Your task to perform on an android device: Go to eBay Image 0: 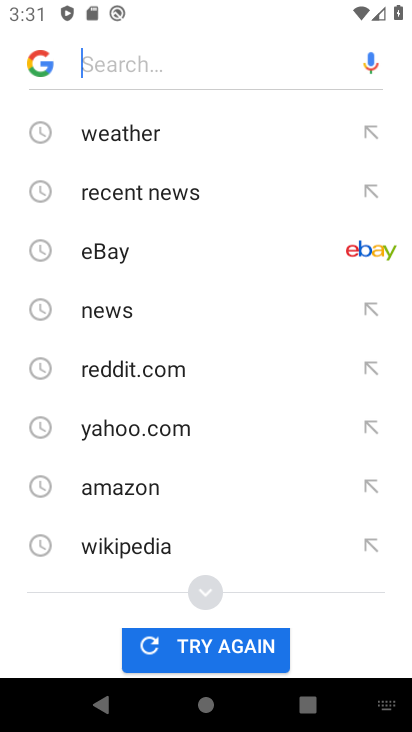
Step 0: click (124, 254)
Your task to perform on an android device: Go to eBay Image 1: 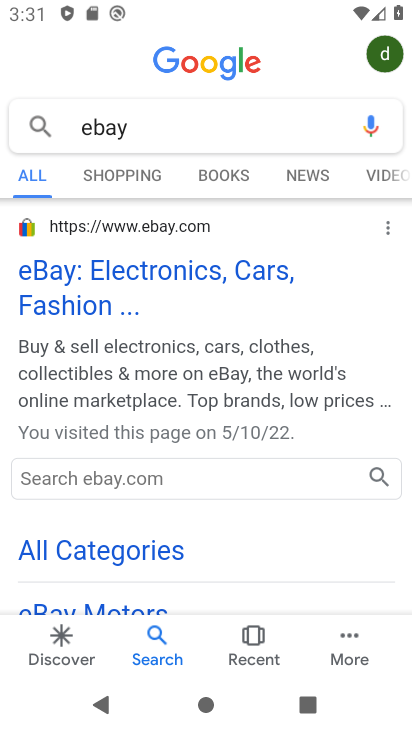
Step 1: click (55, 287)
Your task to perform on an android device: Go to eBay Image 2: 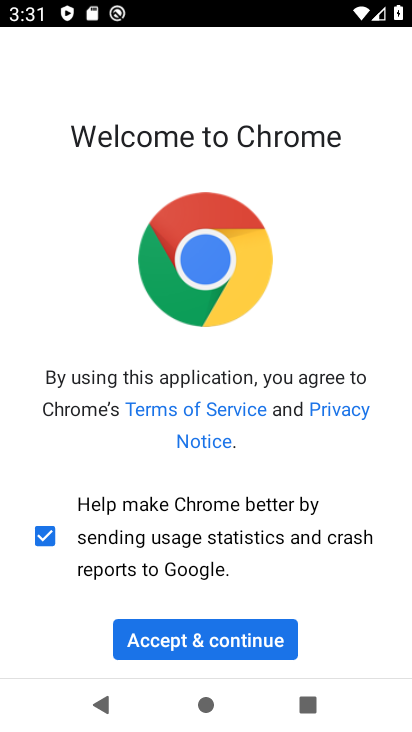
Step 2: click (246, 637)
Your task to perform on an android device: Go to eBay Image 3: 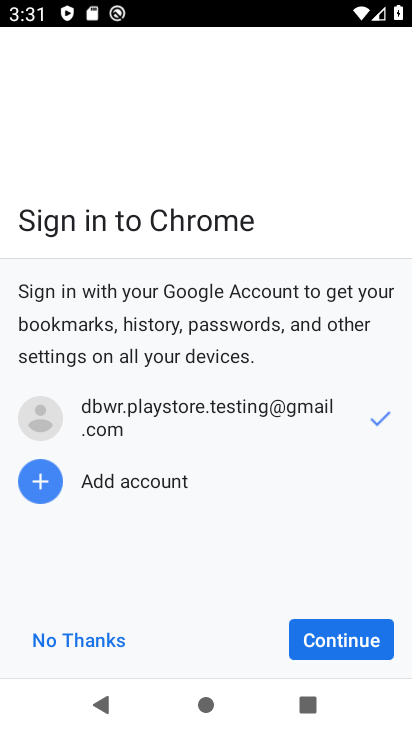
Step 3: click (310, 631)
Your task to perform on an android device: Go to eBay Image 4: 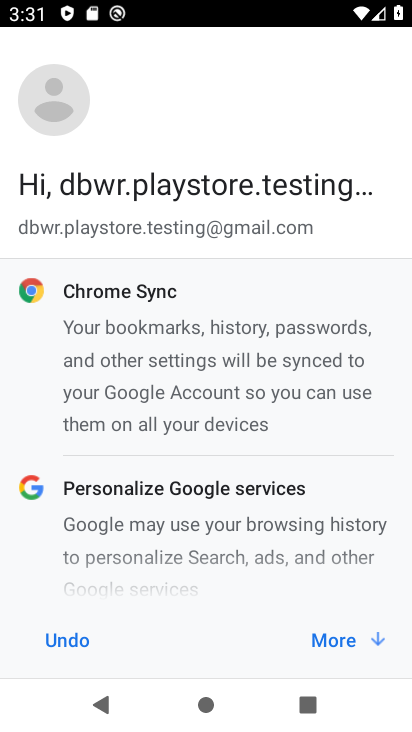
Step 4: click (330, 643)
Your task to perform on an android device: Go to eBay Image 5: 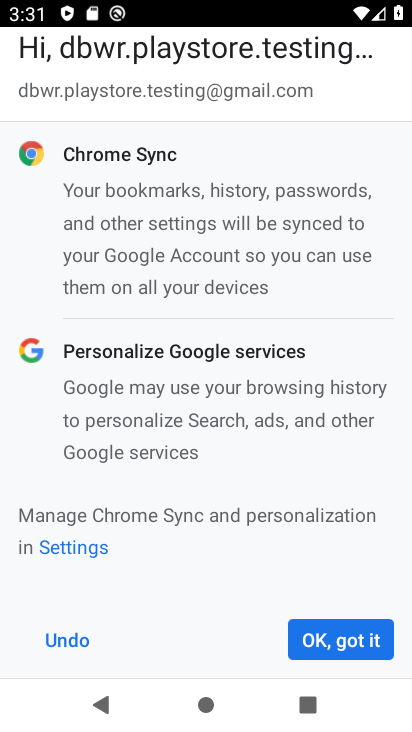
Step 5: click (333, 643)
Your task to perform on an android device: Go to eBay Image 6: 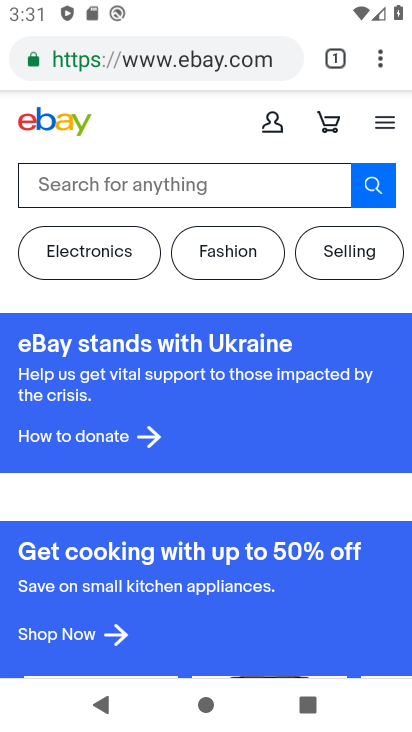
Step 6: task complete